Your task to perform on an android device: change keyboard looks Image 0: 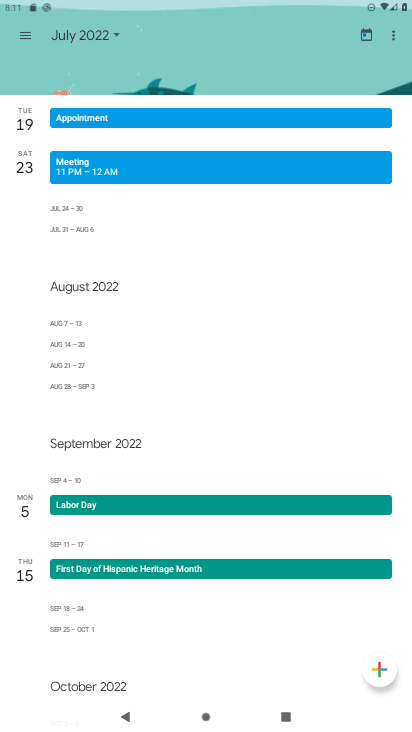
Step 0: press home button
Your task to perform on an android device: change keyboard looks Image 1: 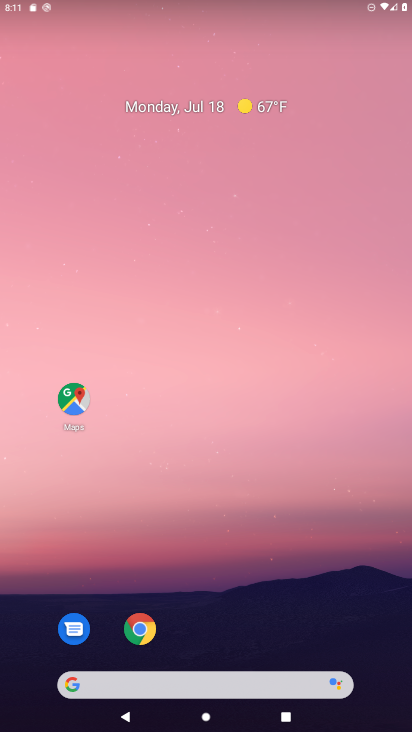
Step 1: drag from (211, 678) to (189, 50)
Your task to perform on an android device: change keyboard looks Image 2: 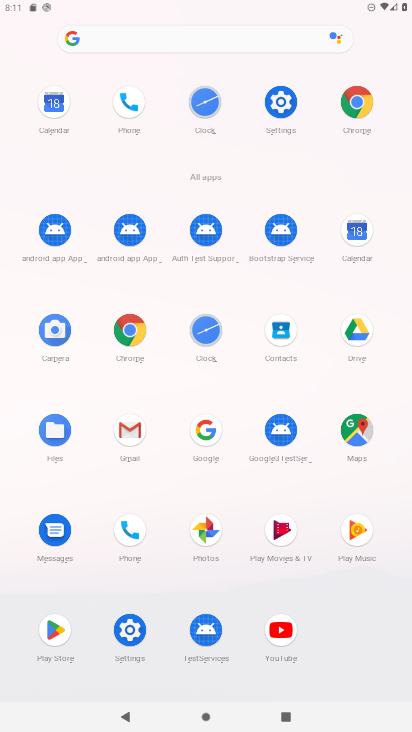
Step 2: click (284, 94)
Your task to perform on an android device: change keyboard looks Image 3: 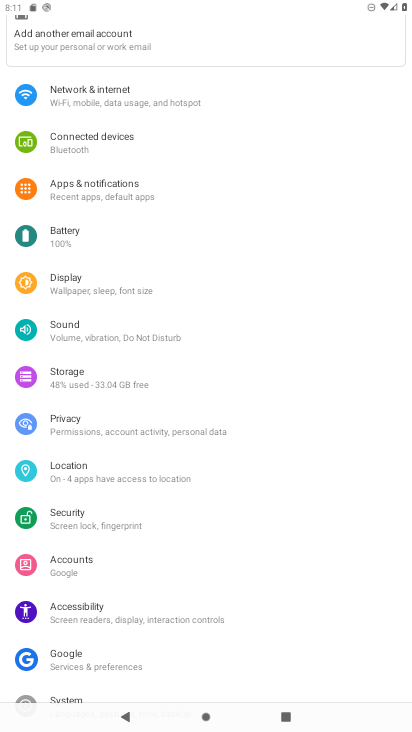
Step 3: drag from (70, 617) to (59, 349)
Your task to perform on an android device: change keyboard looks Image 4: 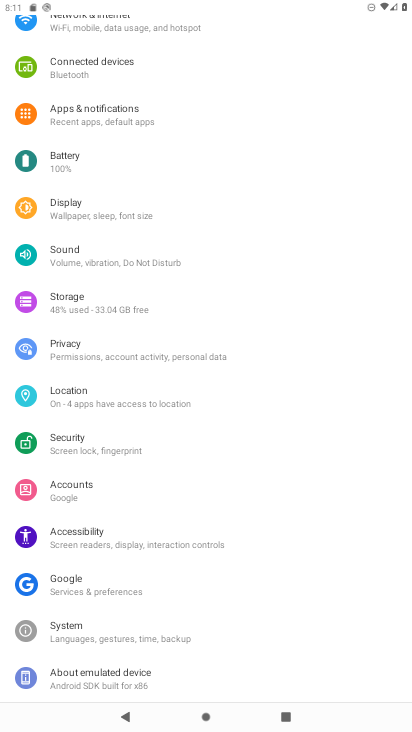
Step 4: click (89, 629)
Your task to perform on an android device: change keyboard looks Image 5: 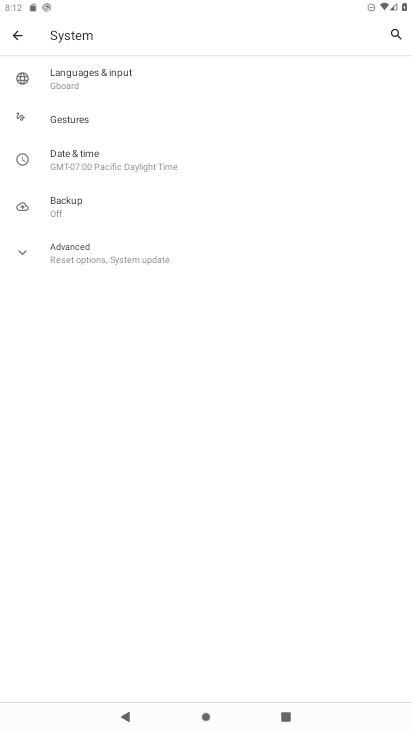
Step 5: click (61, 71)
Your task to perform on an android device: change keyboard looks Image 6: 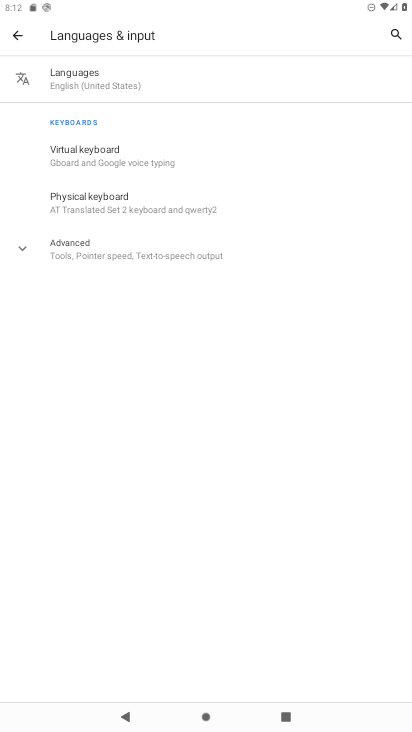
Step 6: click (65, 242)
Your task to perform on an android device: change keyboard looks Image 7: 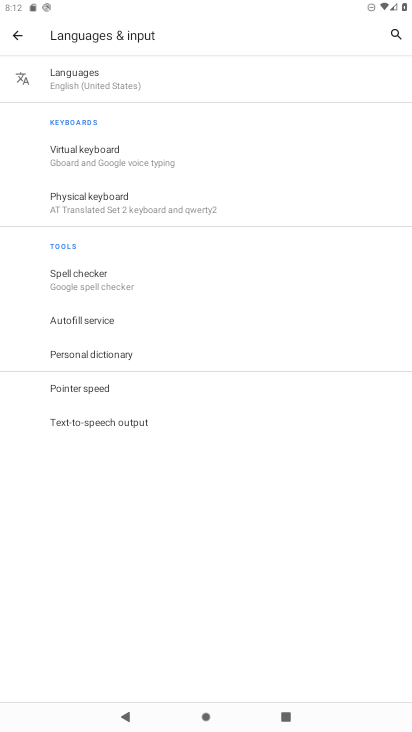
Step 7: click (89, 158)
Your task to perform on an android device: change keyboard looks Image 8: 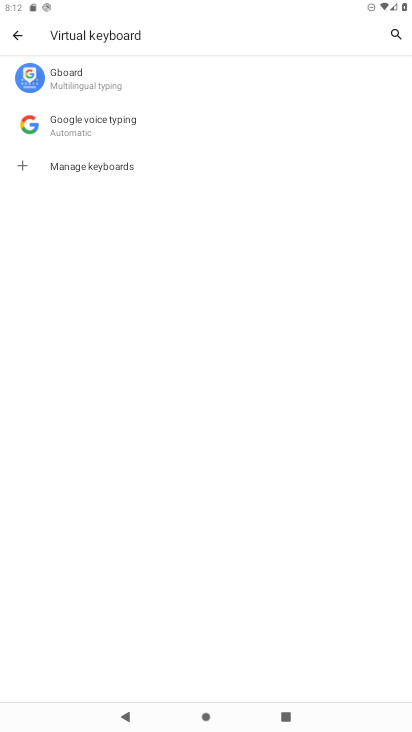
Step 8: click (66, 71)
Your task to perform on an android device: change keyboard looks Image 9: 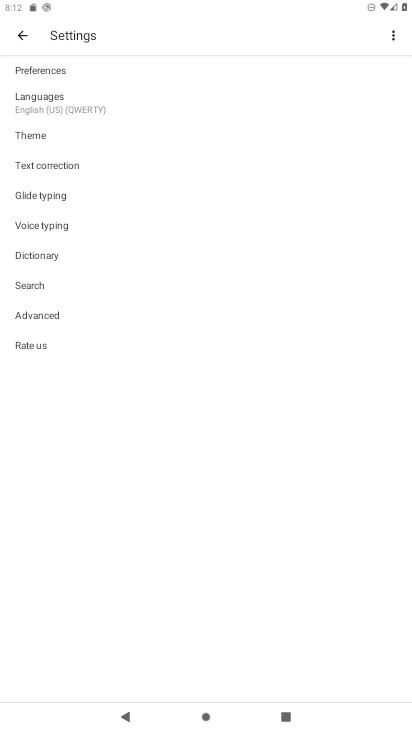
Step 9: click (37, 134)
Your task to perform on an android device: change keyboard looks Image 10: 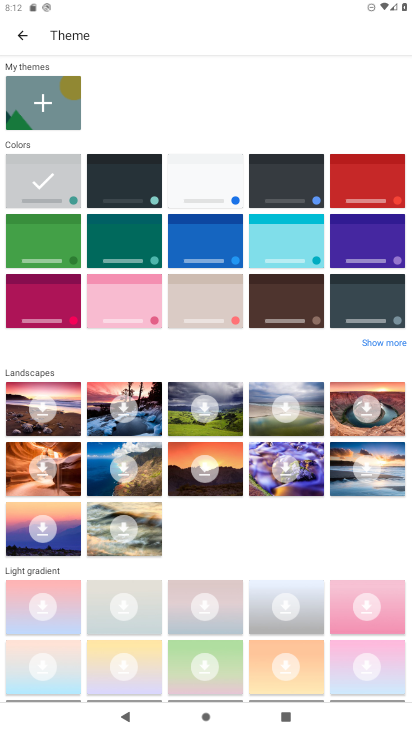
Step 10: click (124, 164)
Your task to perform on an android device: change keyboard looks Image 11: 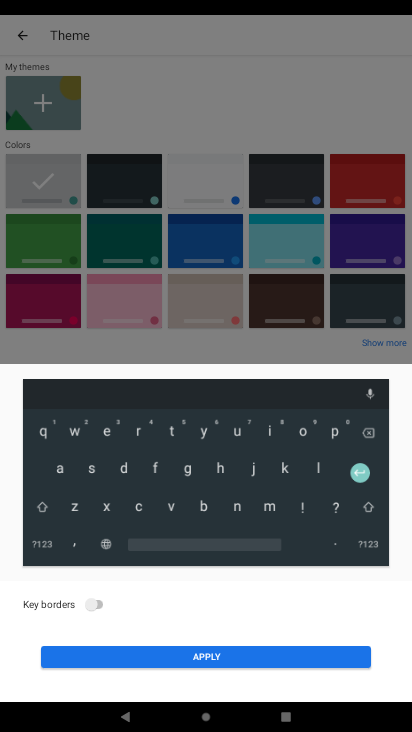
Step 11: click (216, 642)
Your task to perform on an android device: change keyboard looks Image 12: 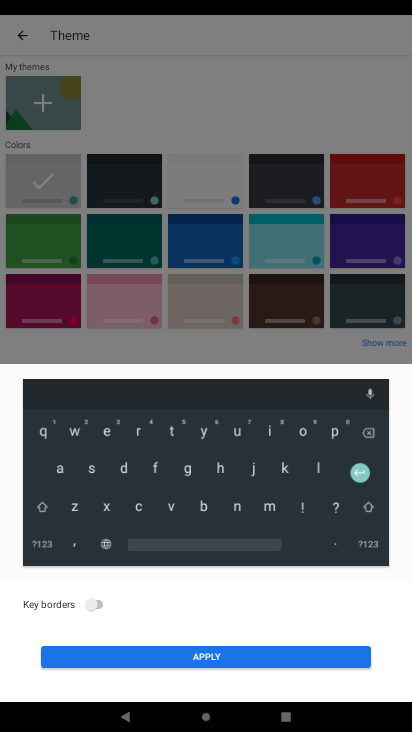
Step 12: click (208, 658)
Your task to perform on an android device: change keyboard looks Image 13: 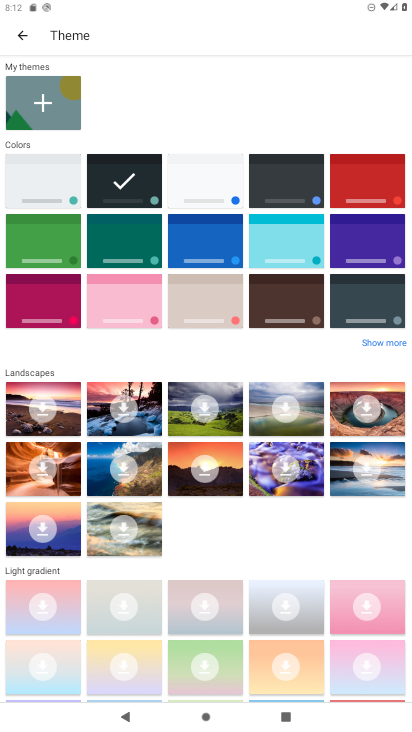
Step 13: task complete